Your task to perform on an android device: set the timer Image 0: 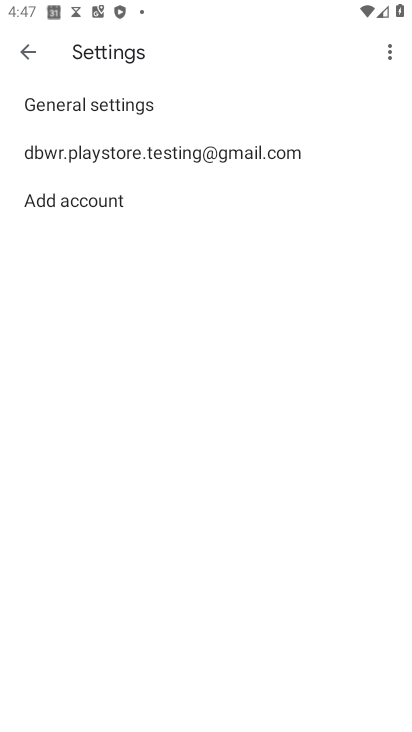
Step 0: click (23, 63)
Your task to perform on an android device: set the timer Image 1: 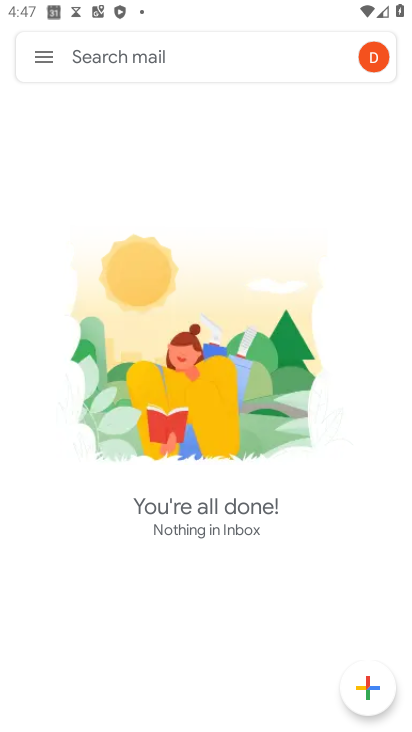
Step 1: drag from (189, 458) to (218, 21)
Your task to perform on an android device: set the timer Image 2: 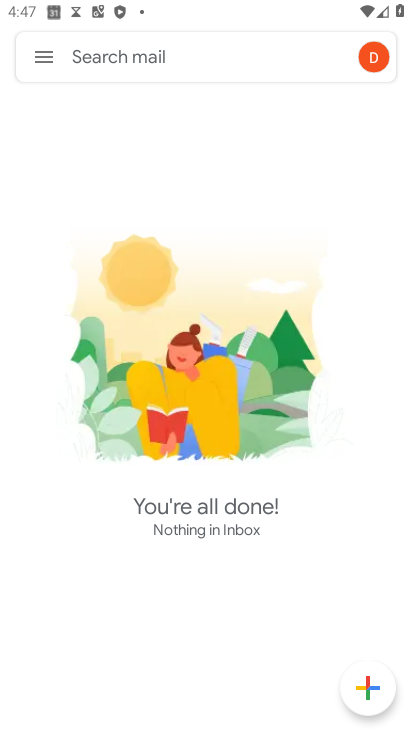
Step 2: press back button
Your task to perform on an android device: set the timer Image 3: 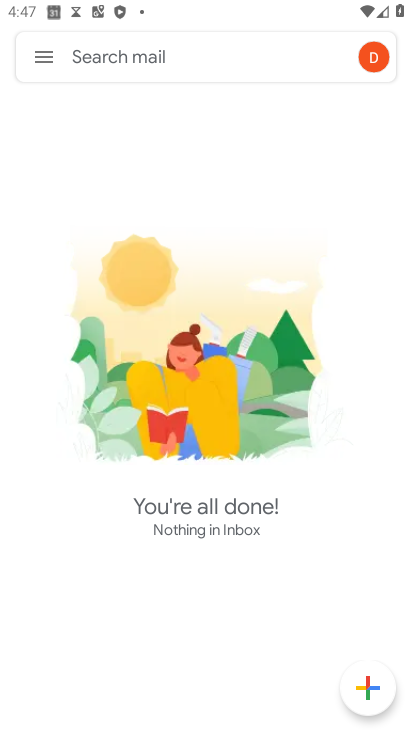
Step 3: press back button
Your task to perform on an android device: set the timer Image 4: 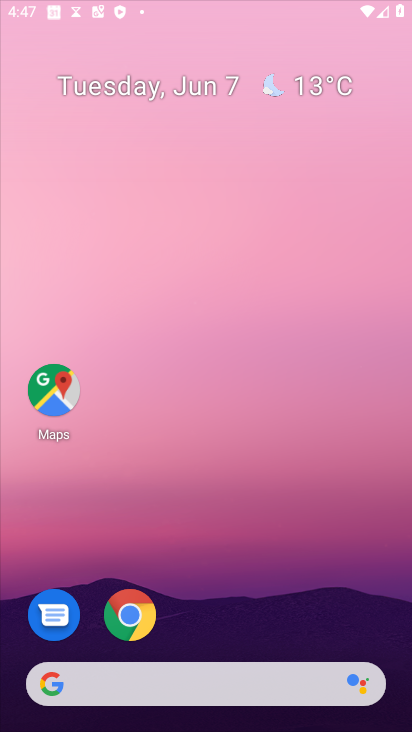
Step 4: press back button
Your task to perform on an android device: set the timer Image 5: 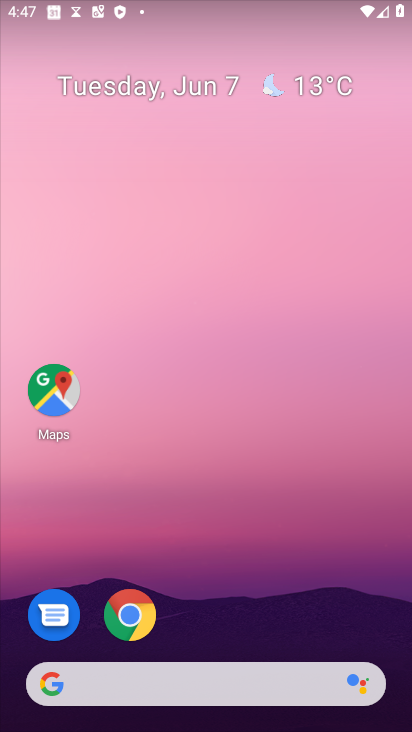
Step 5: drag from (227, 573) to (157, 113)
Your task to perform on an android device: set the timer Image 6: 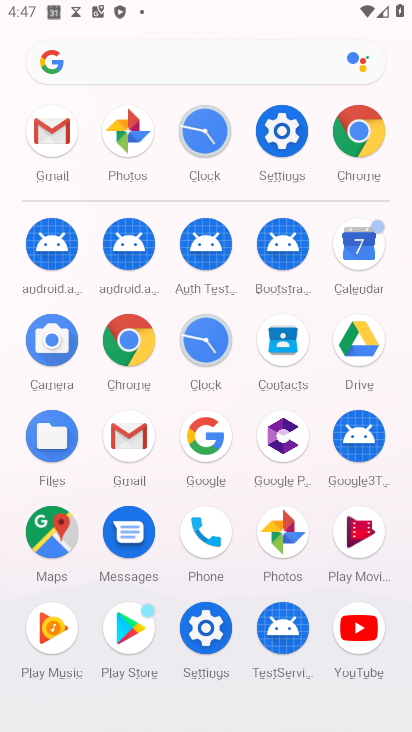
Step 6: click (215, 331)
Your task to perform on an android device: set the timer Image 7: 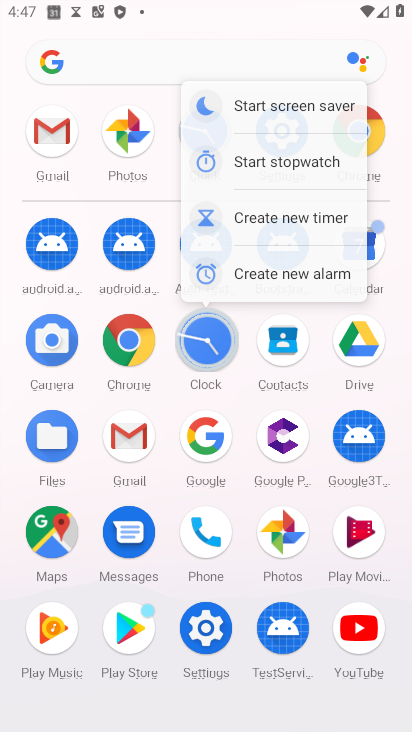
Step 7: click (195, 336)
Your task to perform on an android device: set the timer Image 8: 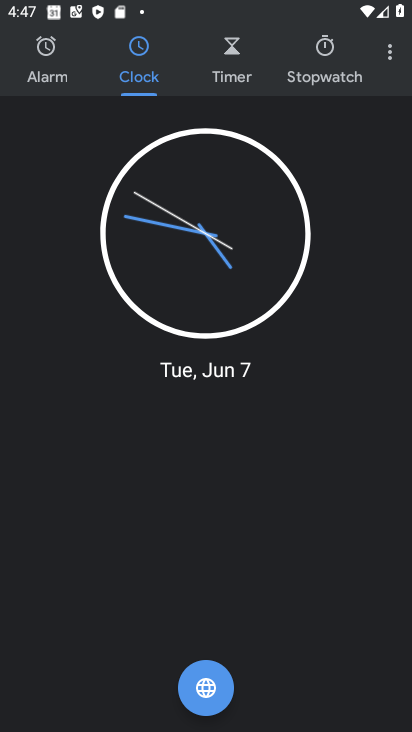
Step 8: click (216, 61)
Your task to perform on an android device: set the timer Image 9: 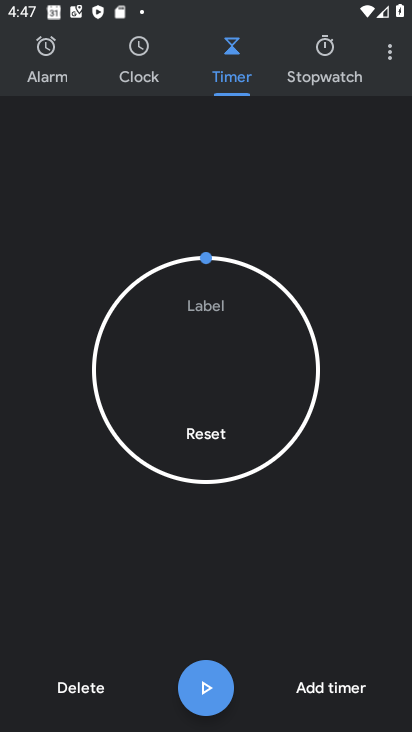
Step 9: click (204, 696)
Your task to perform on an android device: set the timer Image 10: 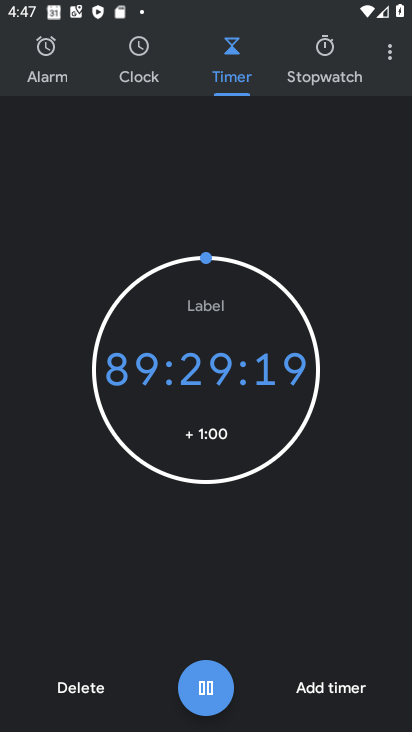
Step 10: click (205, 686)
Your task to perform on an android device: set the timer Image 11: 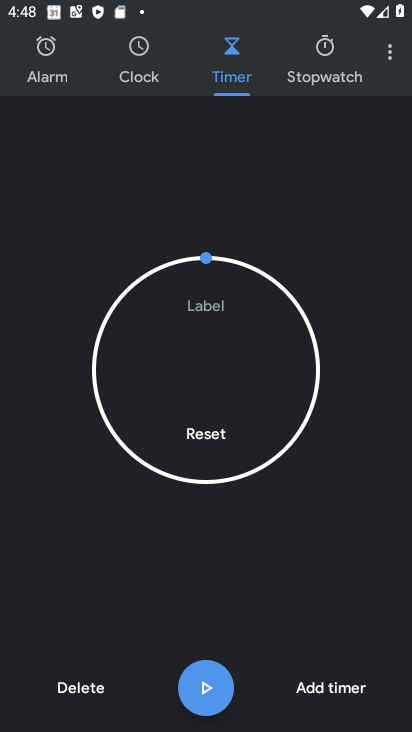
Step 11: task complete